Your task to perform on an android device: turn on sleep mode Image 0: 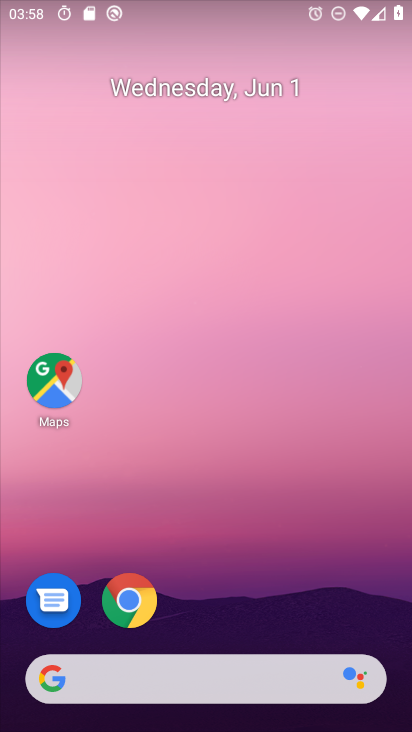
Step 0: drag from (197, 615) to (239, 80)
Your task to perform on an android device: turn on sleep mode Image 1: 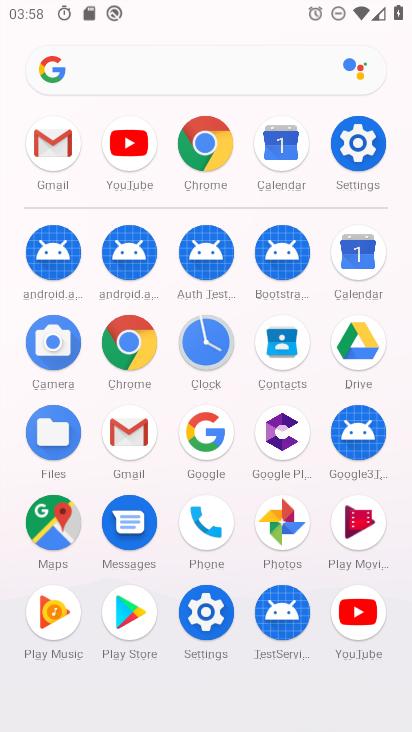
Step 1: click (358, 156)
Your task to perform on an android device: turn on sleep mode Image 2: 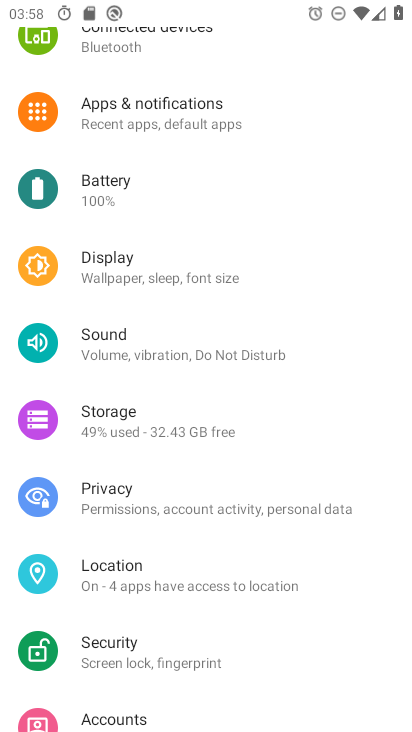
Step 2: drag from (242, 132) to (174, 543)
Your task to perform on an android device: turn on sleep mode Image 3: 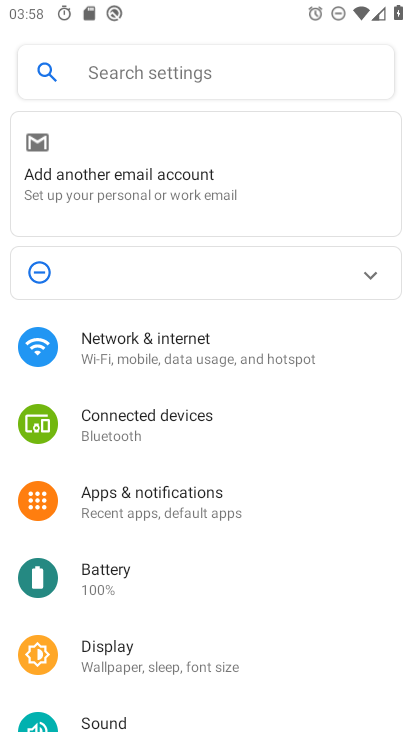
Step 3: click (173, 349)
Your task to perform on an android device: turn on sleep mode Image 4: 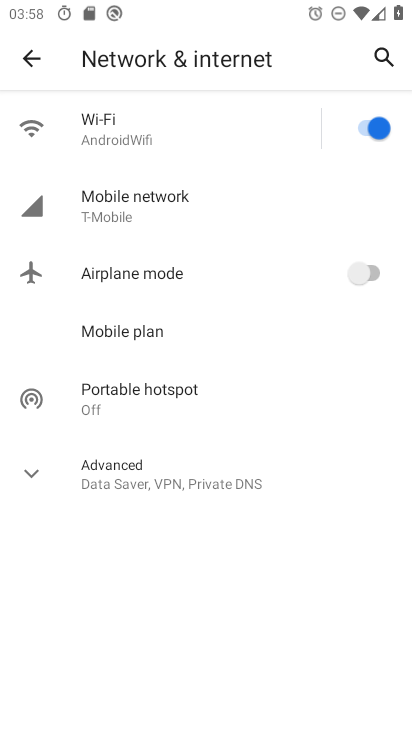
Step 4: task complete